Your task to perform on an android device: Open maps Image 0: 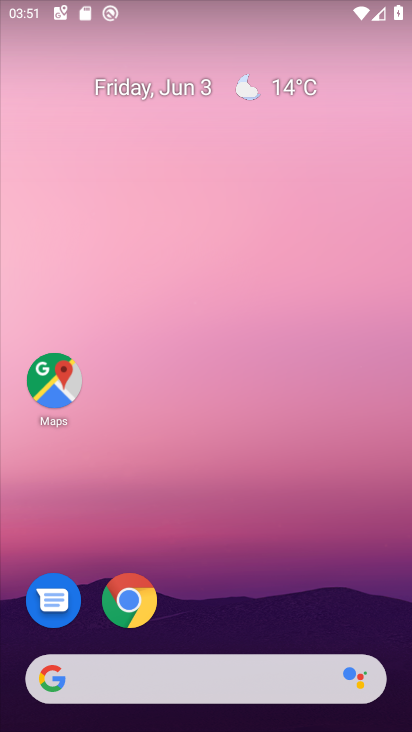
Step 0: click (61, 383)
Your task to perform on an android device: Open maps Image 1: 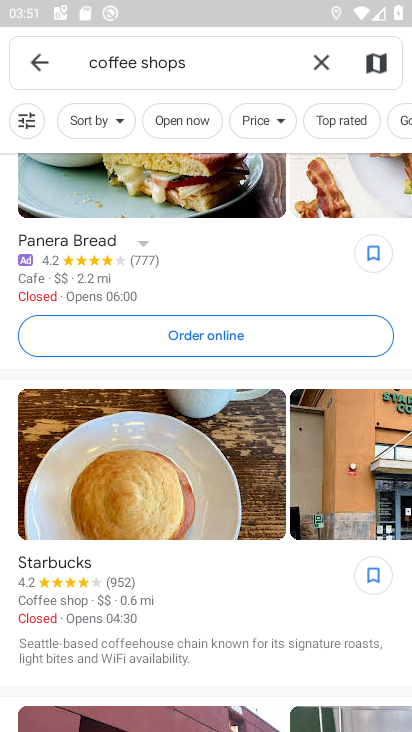
Step 1: task complete